Your task to perform on an android device: Open the calendar and show me this week's events Image 0: 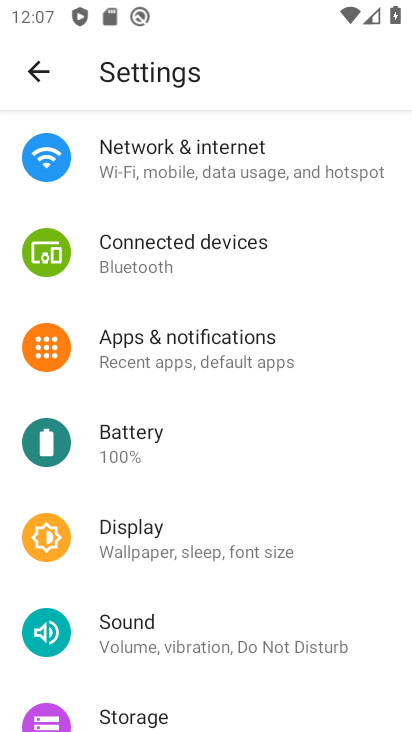
Step 0: press home button
Your task to perform on an android device: Open the calendar and show me this week's events Image 1: 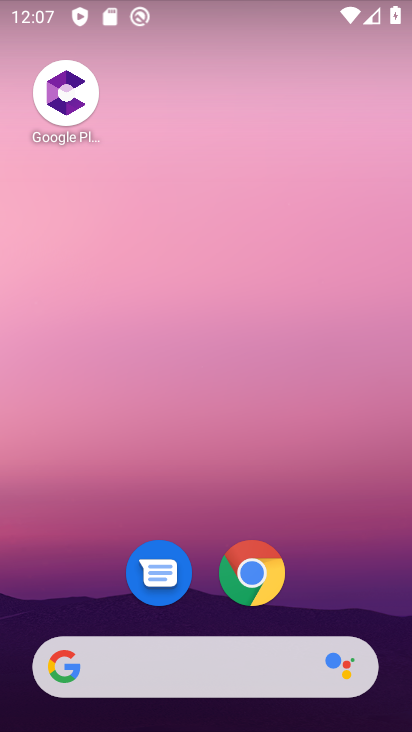
Step 1: drag from (301, 451) to (187, 32)
Your task to perform on an android device: Open the calendar and show me this week's events Image 2: 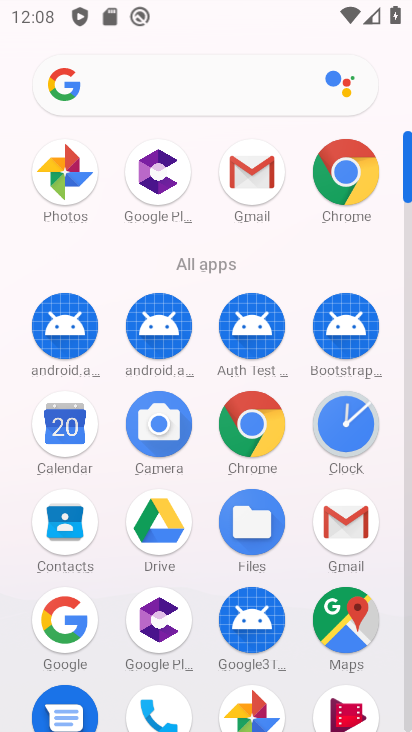
Step 2: click (72, 416)
Your task to perform on an android device: Open the calendar and show me this week's events Image 3: 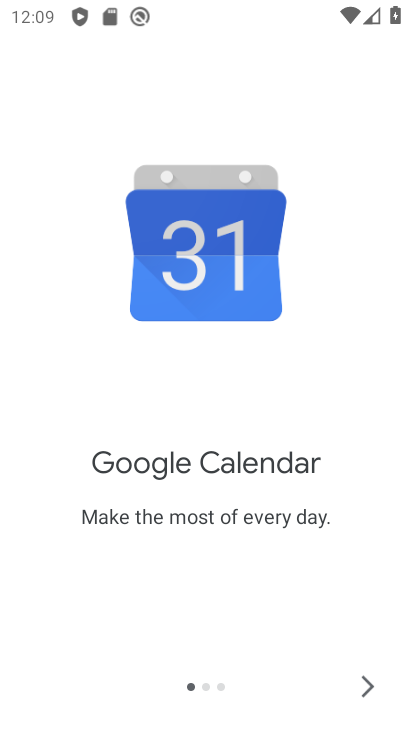
Step 3: click (369, 686)
Your task to perform on an android device: Open the calendar and show me this week's events Image 4: 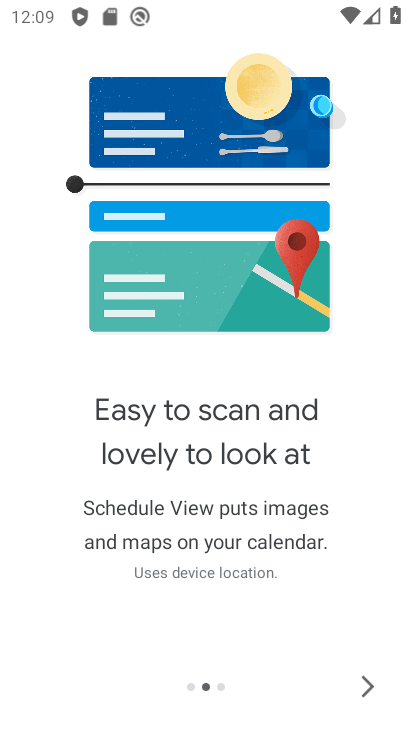
Step 4: click (369, 686)
Your task to perform on an android device: Open the calendar and show me this week's events Image 5: 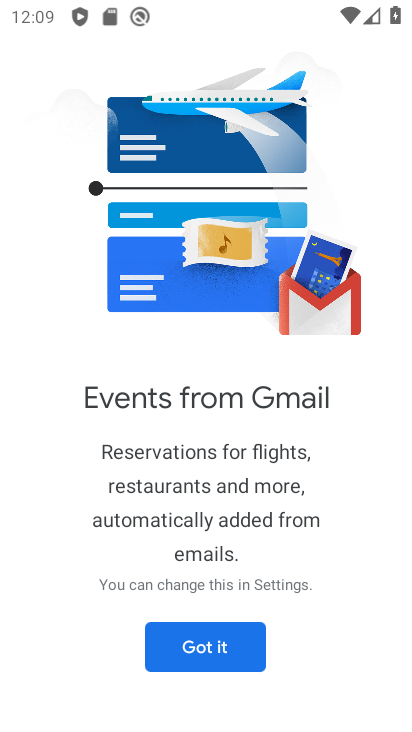
Step 5: click (204, 644)
Your task to perform on an android device: Open the calendar and show me this week's events Image 6: 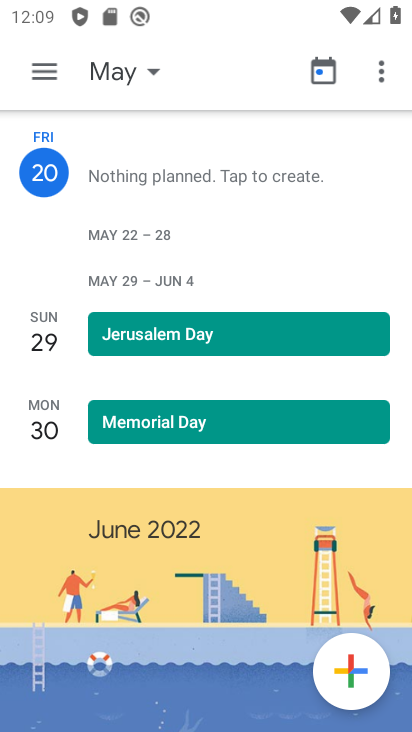
Step 6: click (44, 69)
Your task to perform on an android device: Open the calendar and show me this week's events Image 7: 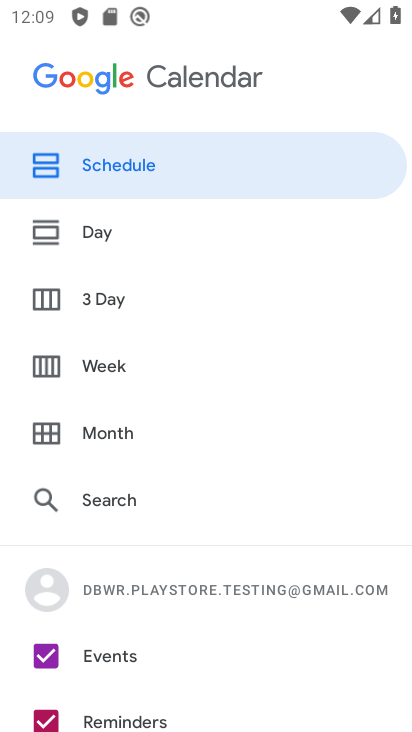
Step 7: click (103, 363)
Your task to perform on an android device: Open the calendar and show me this week's events Image 8: 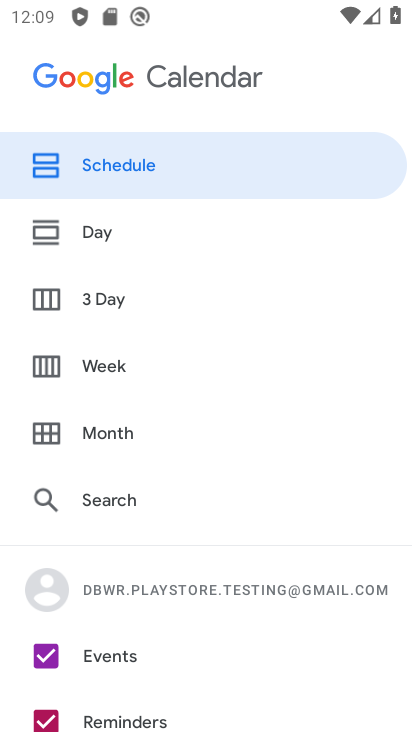
Step 8: click (111, 359)
Your task to perform on an android device: Open the calendar and show me this week's events Image 9: 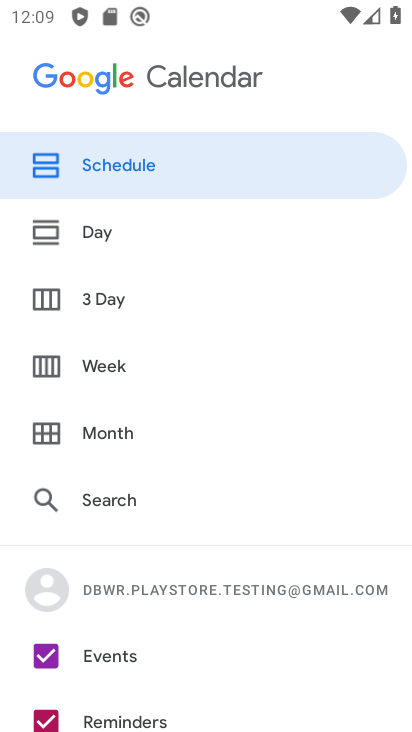
Step 9: click (96, 356)
Your task to perform on an android device: Open the calendar and show me this week's events Image 10: 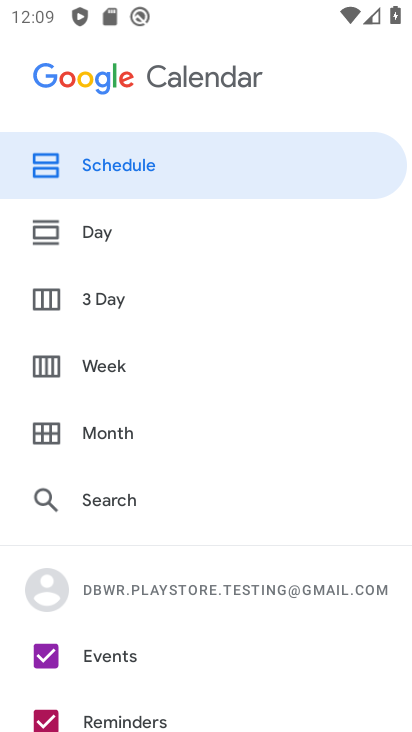
Step 10: click (94, 364)
Your task to perform on an android device: Open the calendar and show me this week's events Image 11: 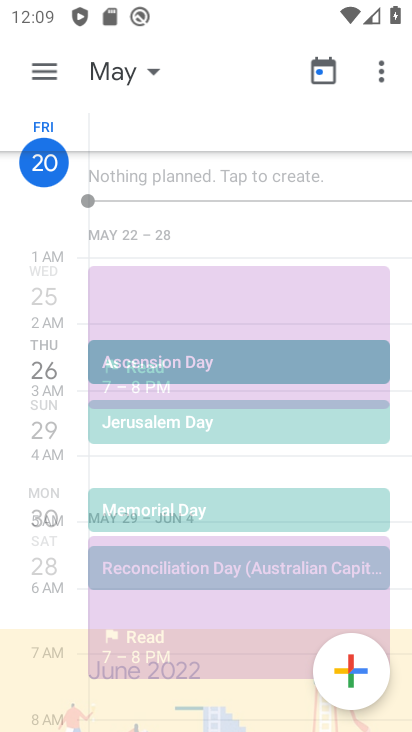
Step 11: click (94, 364)
Your task to perform on an android device: Open the calendar and show me this week's events Image 12: 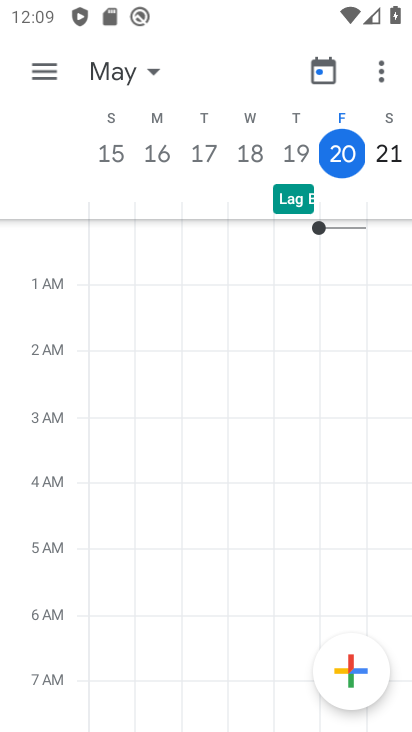
Step 12: task complete